Your task to perform on an android device: Search for "asus rog" on ebay, select the first entry, add it to the cart, then select checkout. Image 0: 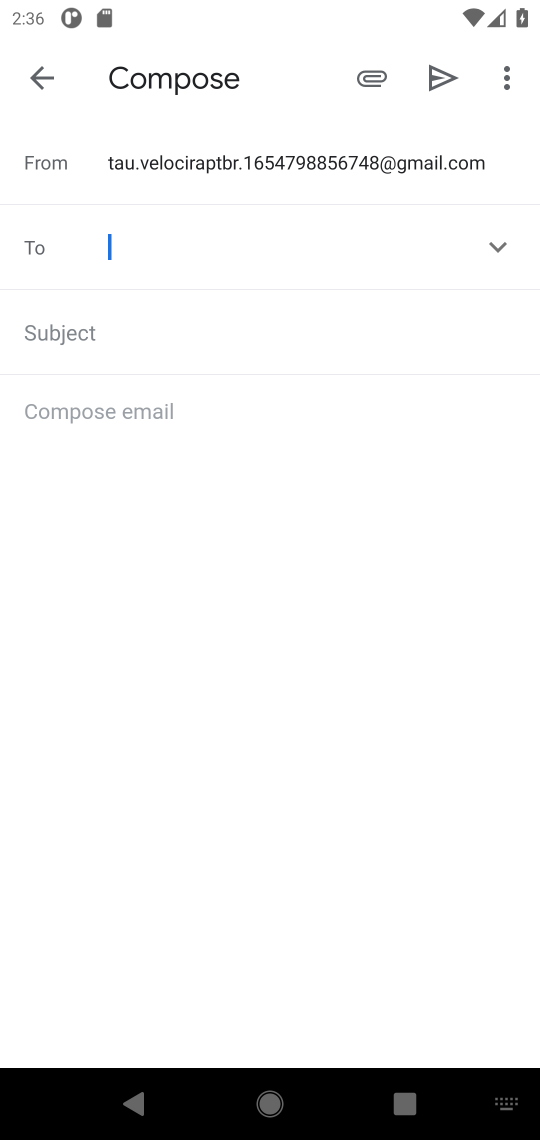
Step 0: press home button
Your task to perform on an android device: Search for "asus rog" on ebay, select the first entry, add it to the cart, then select checkout. Image 1: 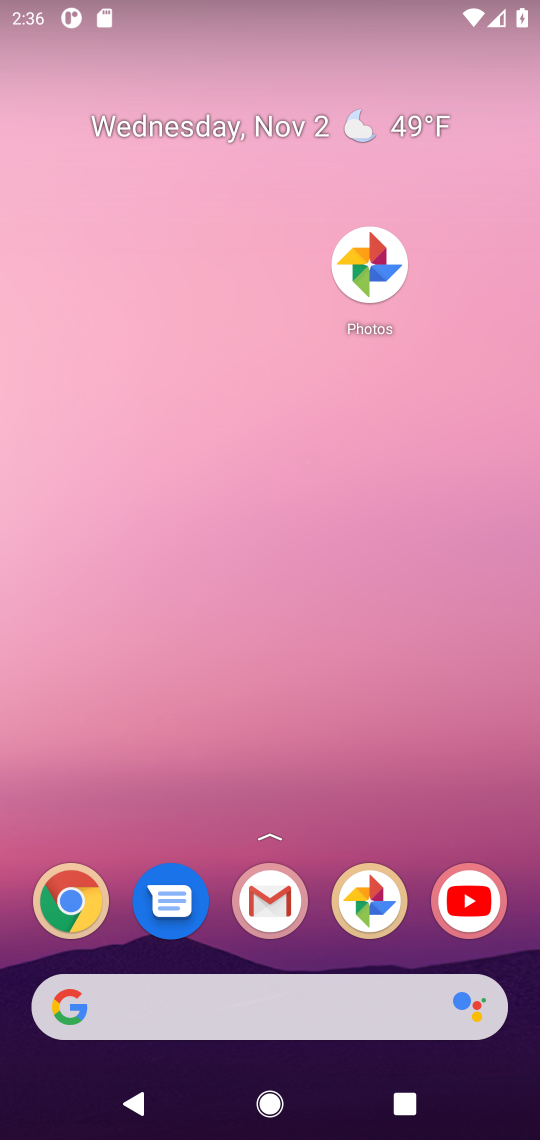
Step 1: drag from (311, 945) to (338, 161)
Your task to perform on an android device: Search for "asus rog" on ebay, select the first entry, add it to the cart, then select checkout. Image 2: 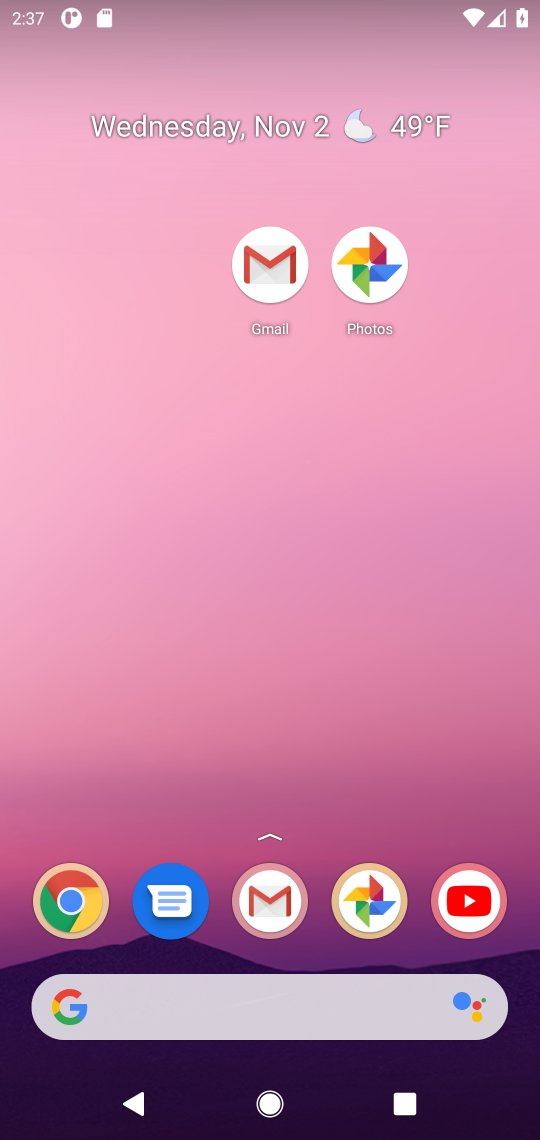
Step 2: drag from (312, 903) to (298, 277)
Your task to perform on an android device: Search for "asus rog" on ebay, select the first entry, add it to the cart, then select checkout. Image 3: 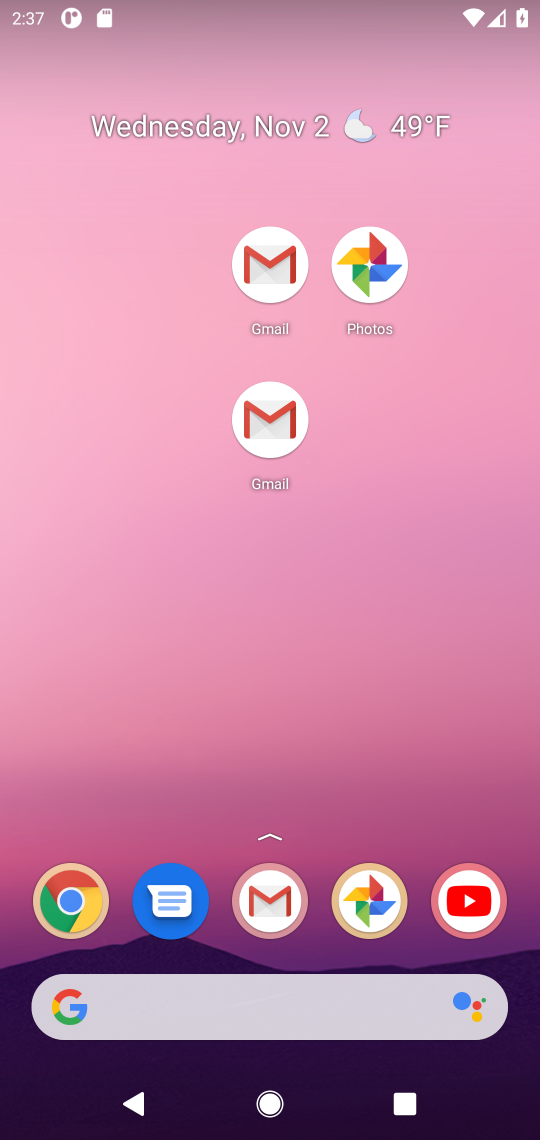
Step 3: drag from (328, 958) to (353, 244)
Your task to perform on an android device: Search for "asus rog" on ebay, select the first entry, add it to the cart, then select checkout. Image 4: 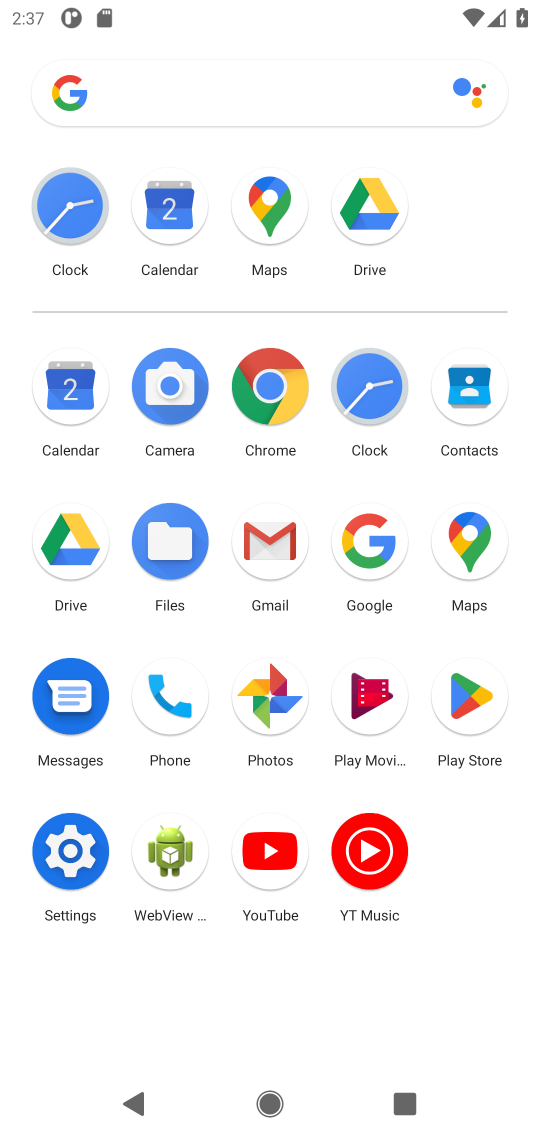
Step 4: click (272, 383)
Your task to perform on an android device: Search for "asus rog" on ebay, select the first entry, add it to the cart, then select checkout. Image 5: 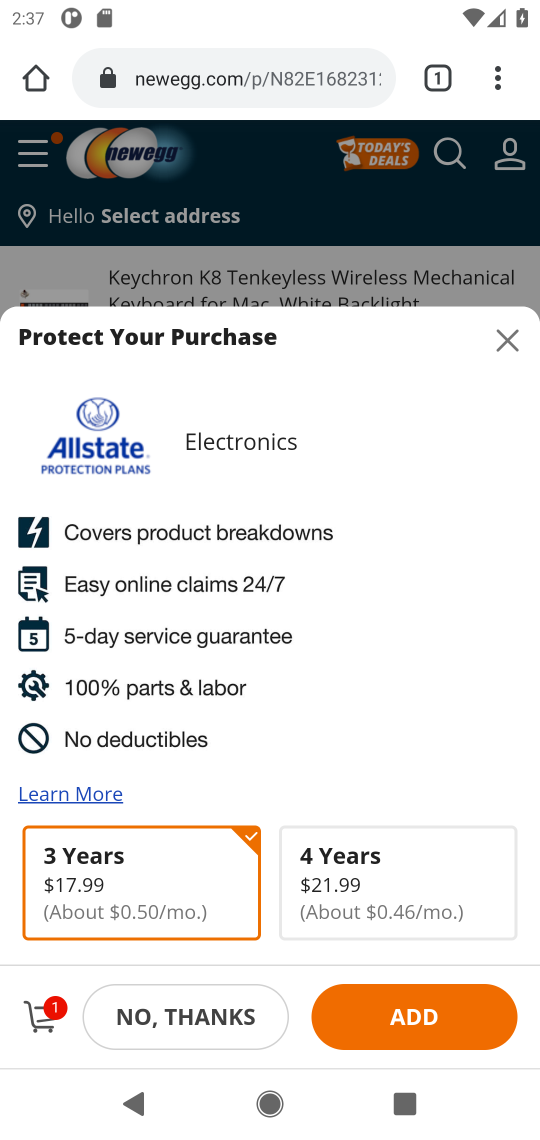
Step 5: click (495, 340)
Your task to perform on an android device: Search for "asus rog" on ebay, select the first entry, add it to the cart, then select checkout. Image 6: 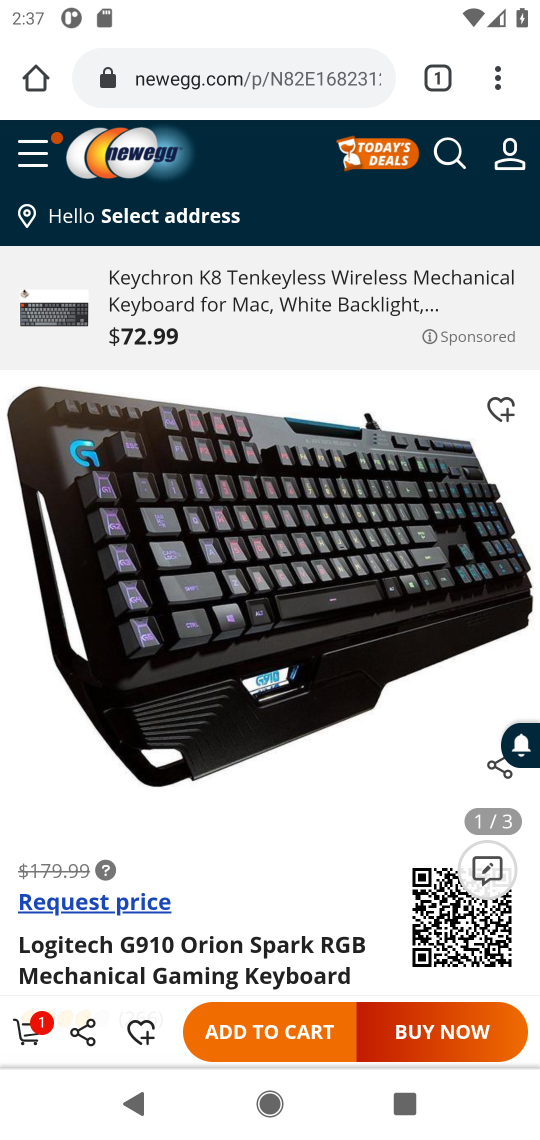
Step 6: click (316, 65)
Your task to perform on an android device: Search for "asus rog" on ebay, select the first entry, add it to the cart, then select checkout. Image 7: 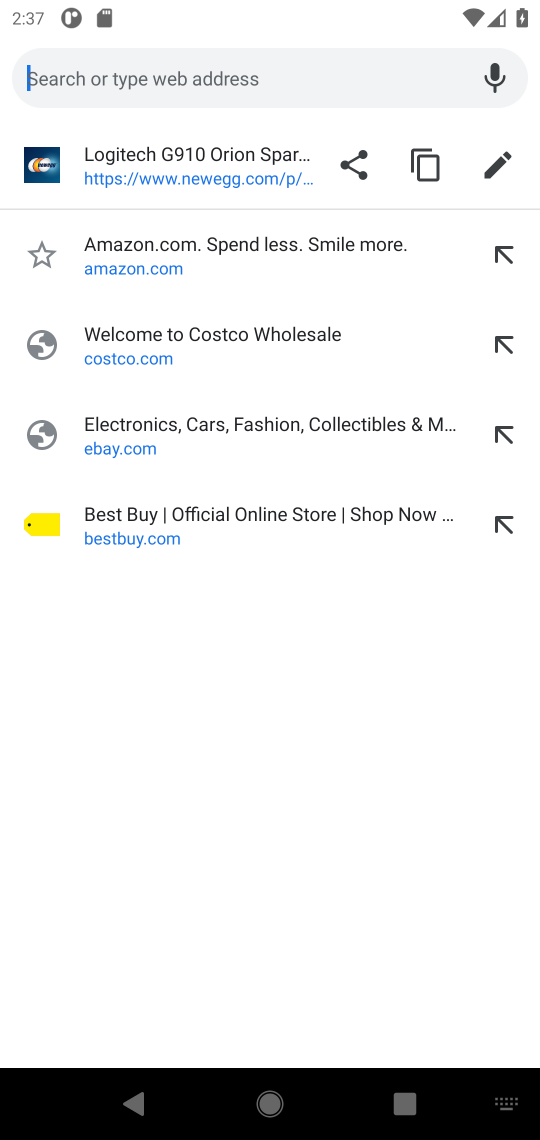
Step 7: type "ebay.com"
Your task to perform on an android device: Search for "asus rog" on ebay, select the first entry, add it to the cart, then select checkout. Image 8: 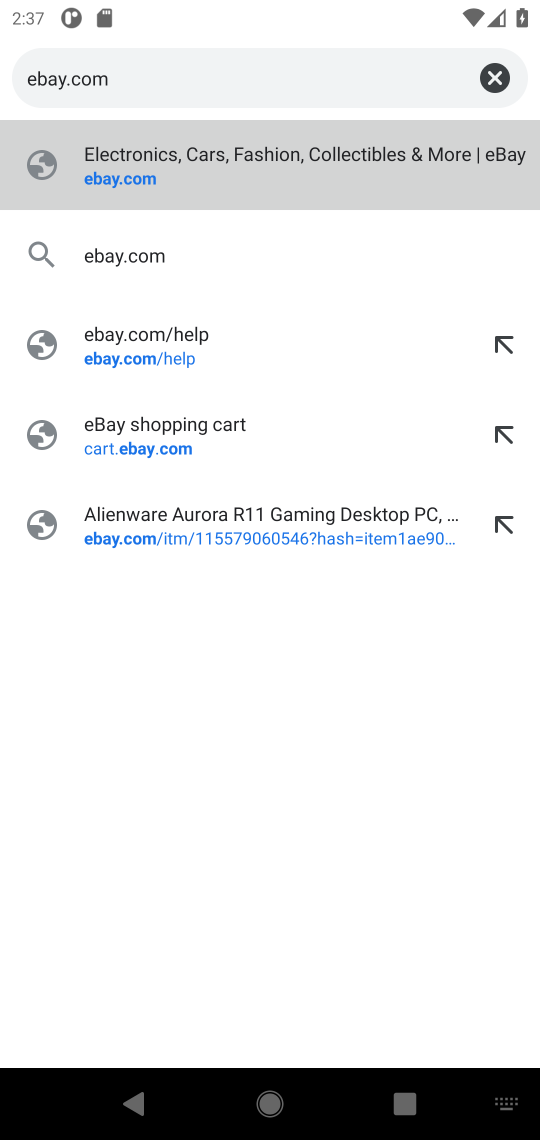
Step 8: press enter
Your task to perform on an android device: Search for "asus rog" on ebay, select the first entry, add it to the cart, then select checkout. Image 9: 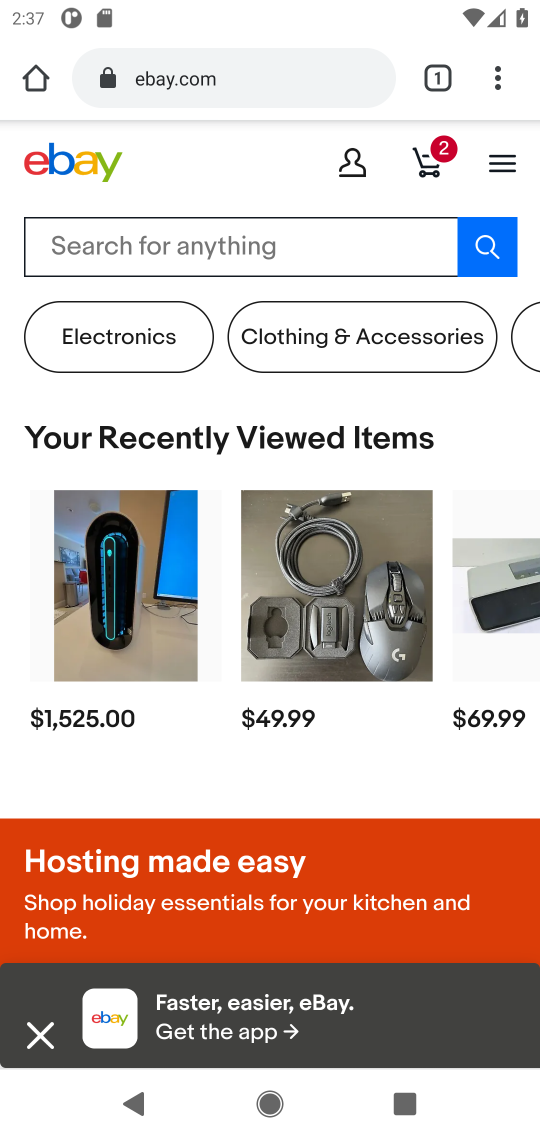
Step 9: click (323, 253)
Your task to perform on an android device: Search for "asus rog" on ebay, select the first entry, add it to the cart, then select checkout. Image 10: 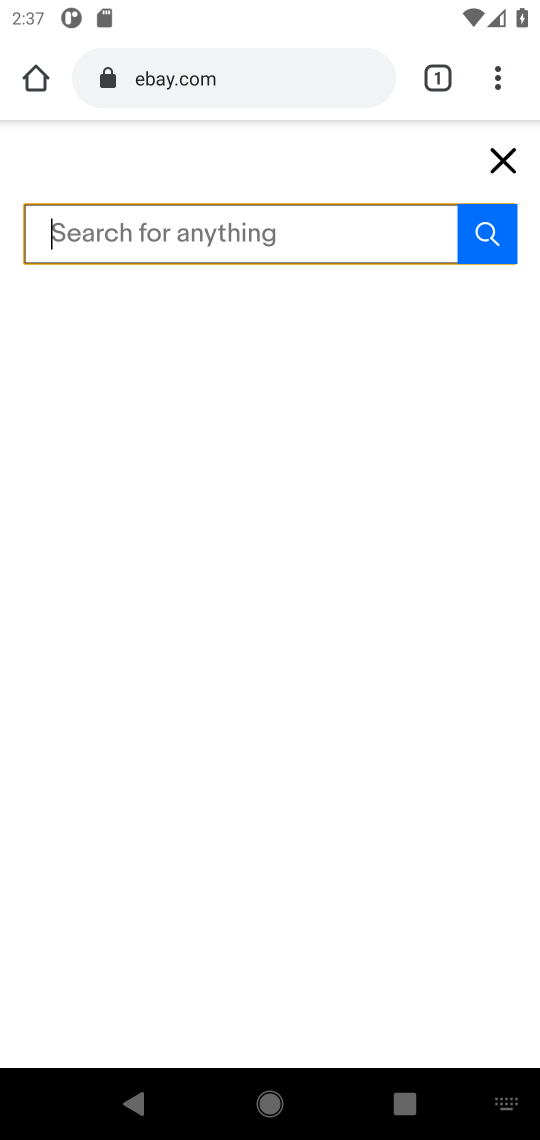
Step 10: type "asus rog"
Your task to perform on an android device: Search for "asus rog" on ebay, select the first entry, add it to the cart, then select checkout. Image 11: 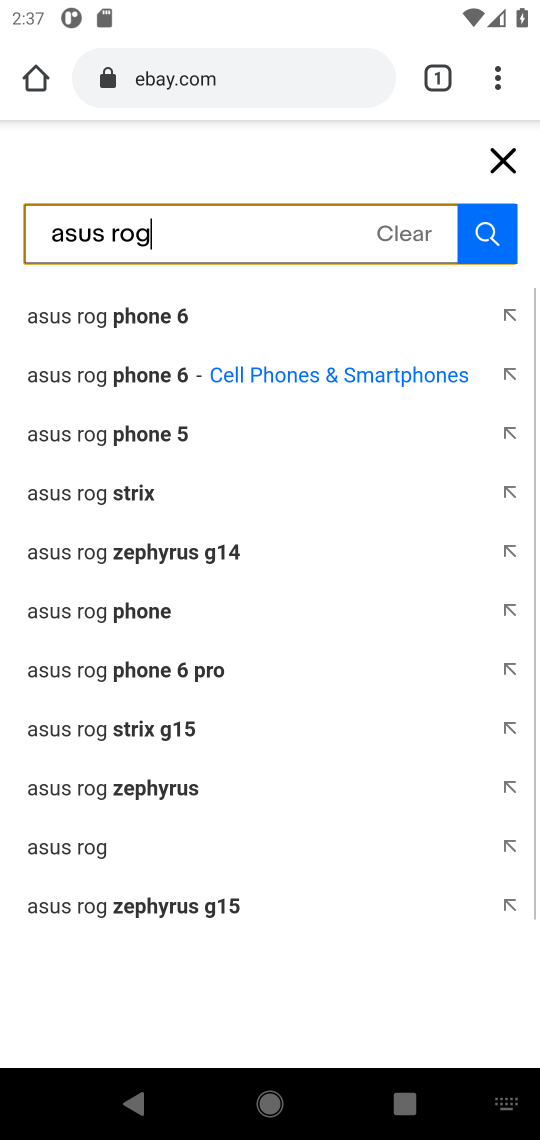
Step 11: press enter
Your task to perform on an android device: Search for "asus rog" on ebay, select the first entry, add it to the cart, then select checkout. Image 12: 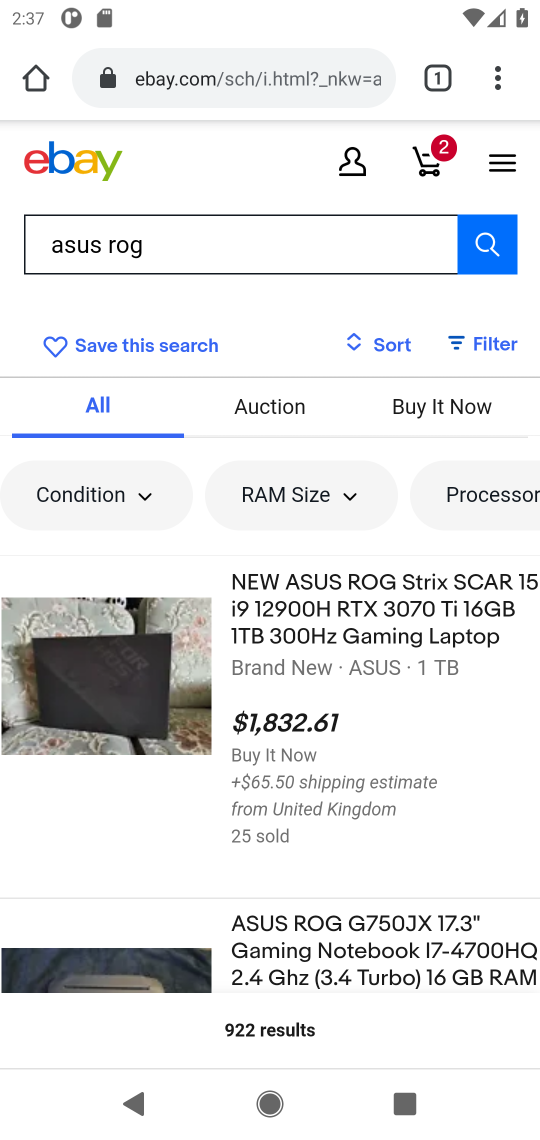
Step 12: click (341, 645)
Your task to perform on an android device: Search for "asus rog" on ebay, select the first entry, add it to the cart, then select checkout. Image 13: 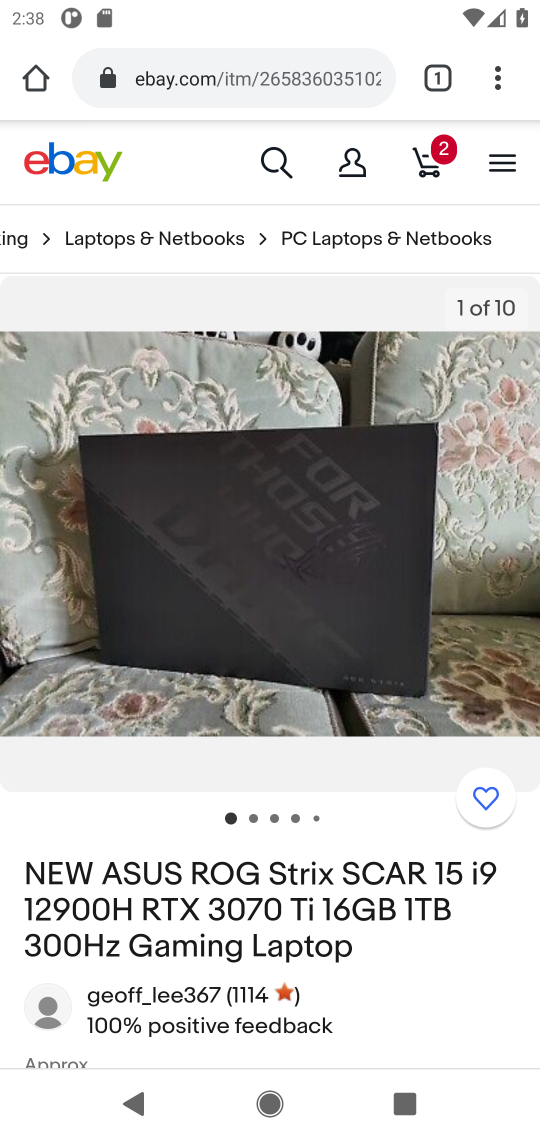
Step 13: drag from (331, 891) to (403, 45)
Your task to perform on an android device: Search for "asus rog" on ebay, select the first entry, add it to the cart, then select checkout. Image 14: 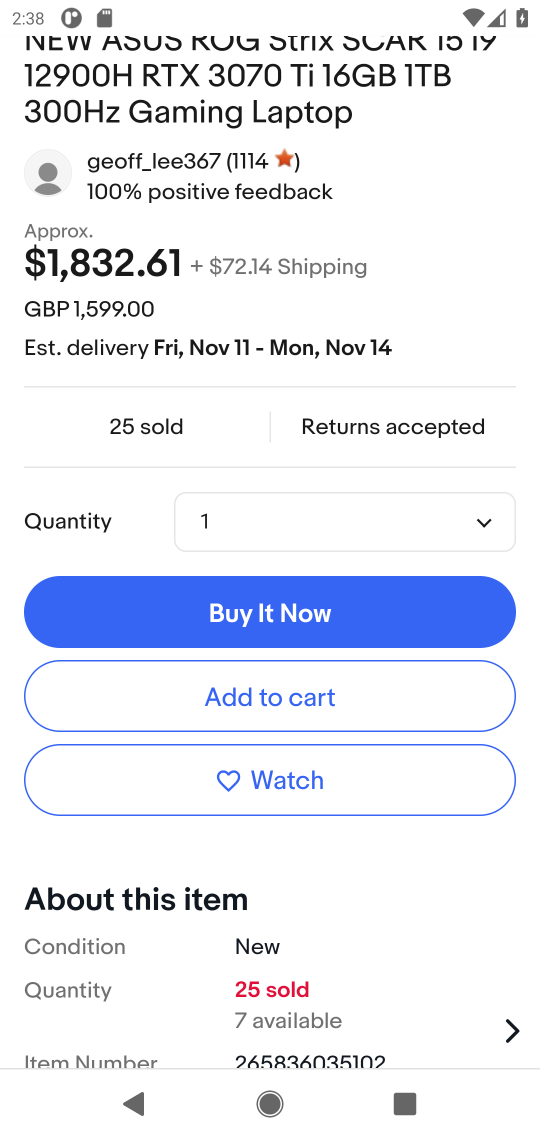
Step 14: click (358, 685)
Your task to perform on an android device: Search for "asus rog" on ebay, select the first entry, add it to the cart, then select checkout. Image 15: 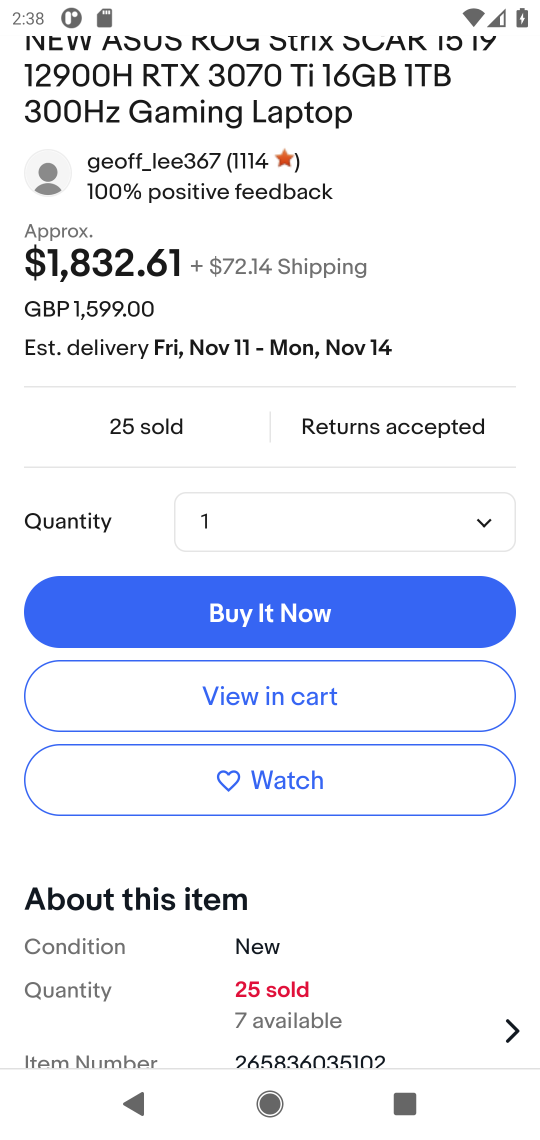
Step 15: click (261, 698)
Your task to perform on an android device: Search for "asus rog" on ebay, select the first entry, add it to the cart, then select checkout. Image 16: 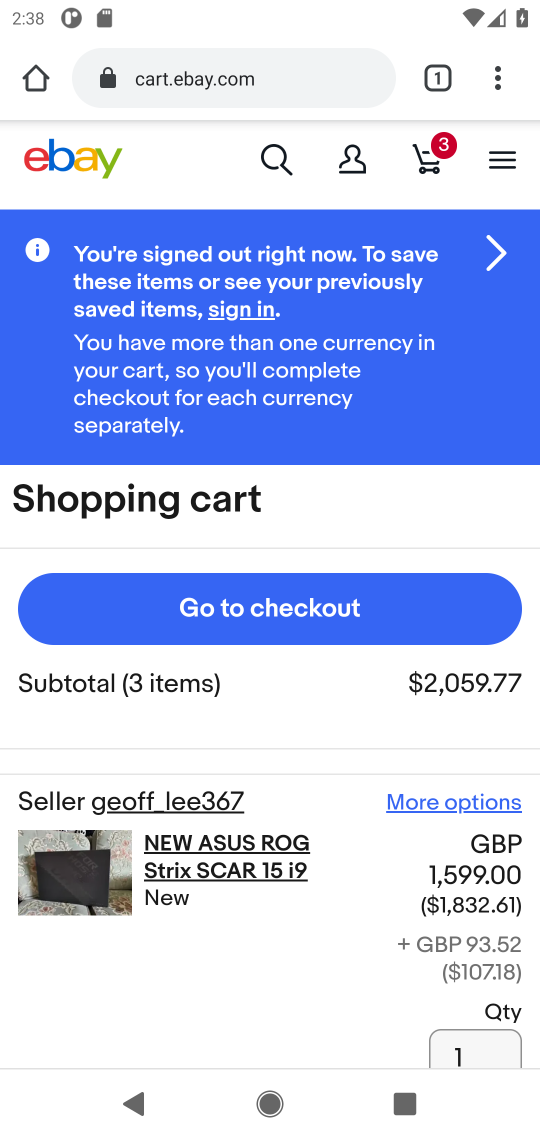
Step 16: click (267, 624)
Your task to perform on an android device: Search for "asus rog" on ebay, select the first entry, add it to the cart, then select checkout. Image 17: 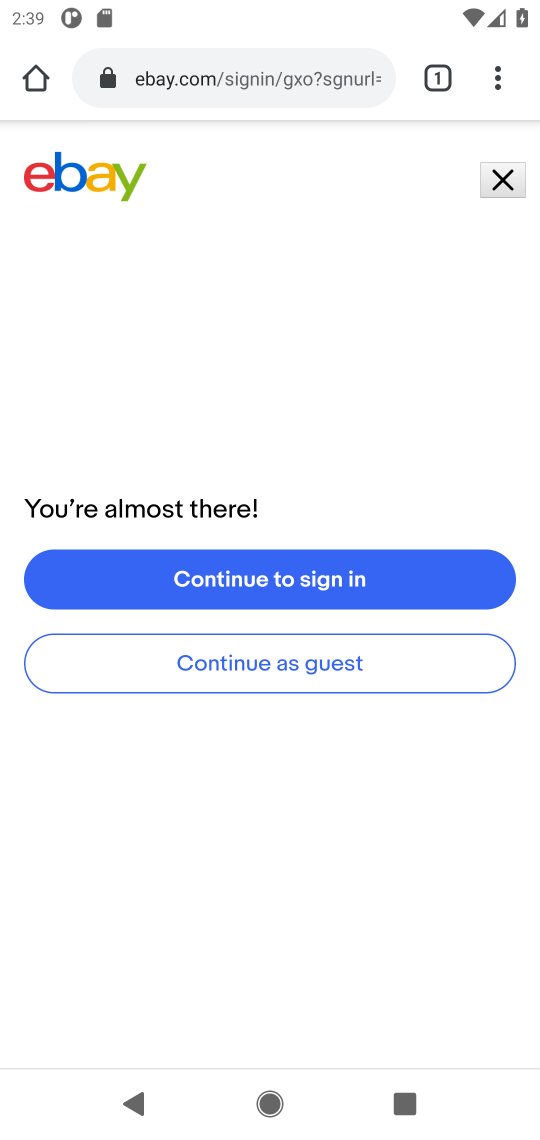
Step 17: task complete